Your task to perform on an android device: Go to battery settings Image 0: 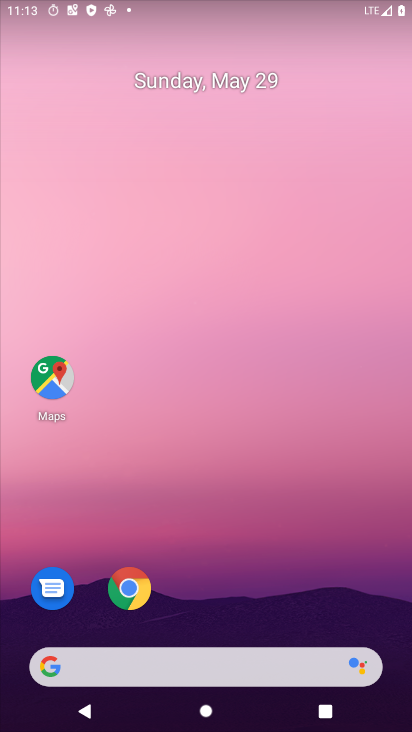
Step 0: drag from (241, 580) to (249, 158)
Your task to perform on an android device: Go to battery settings Image 1: 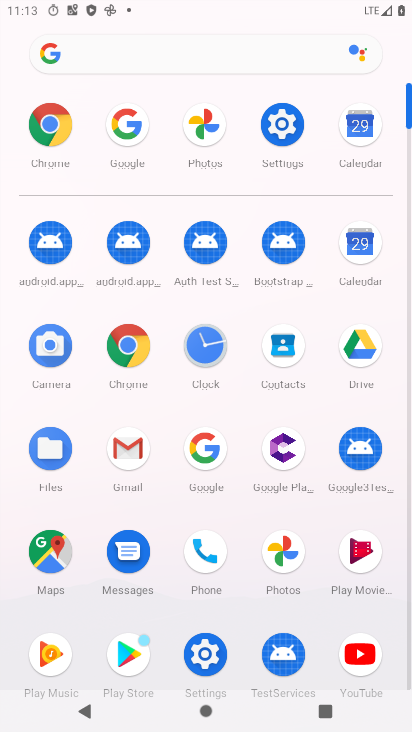
Step 1: click (207, 653)
Your task to perform on an android device: Go to battery settings Image 2: 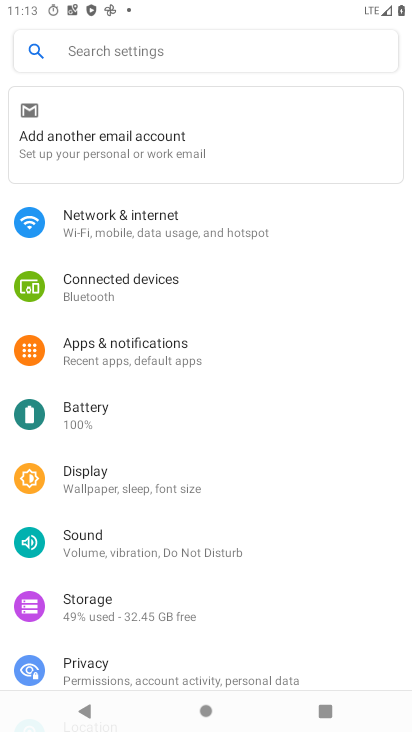
Step 2: click (159, 416)
Your task to perform on an android device: Go to battery settings Image 3: 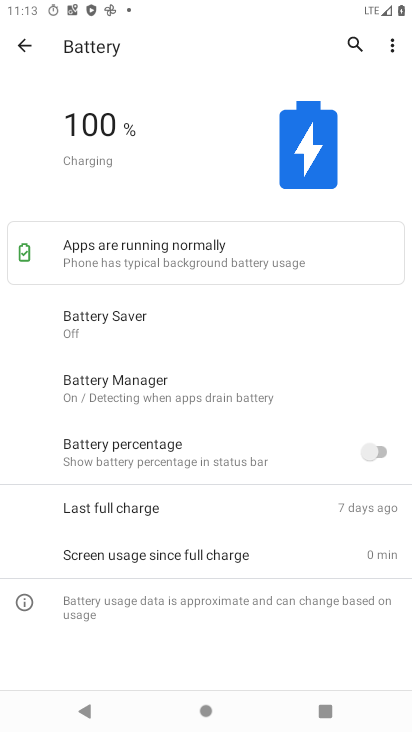
Step 3: task complete